Your task to perform on an android device: turn off data saver in the chrome app Image 0: 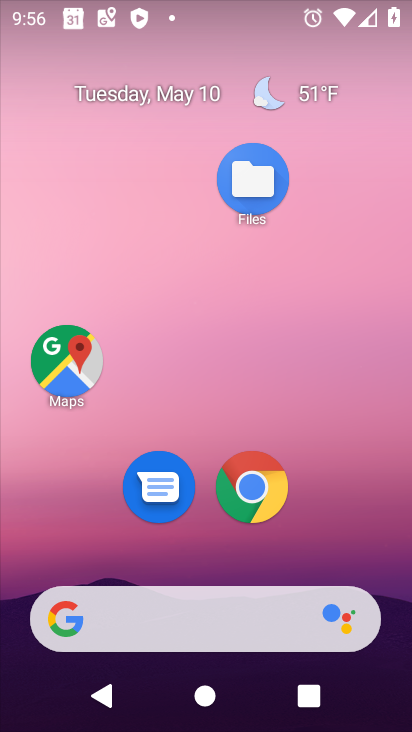
Step 0: click (255, 489)
Your task to perform on an android device: turn off data saver in the chrome app Image 1: 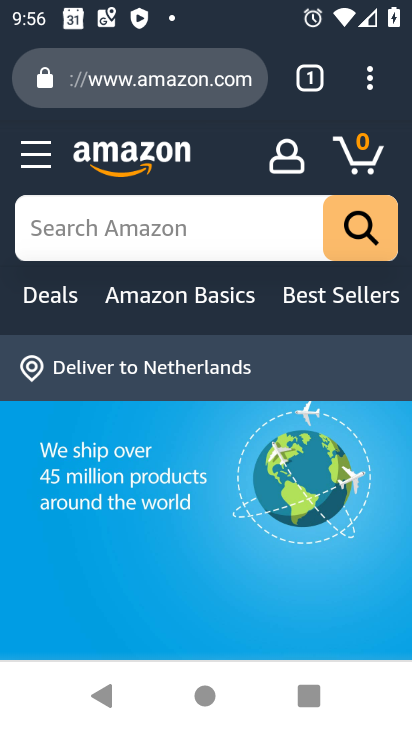
Step 1: click (362, 94)
Your task to perform on an android device: turn off data saver in the chrome app Image 2: 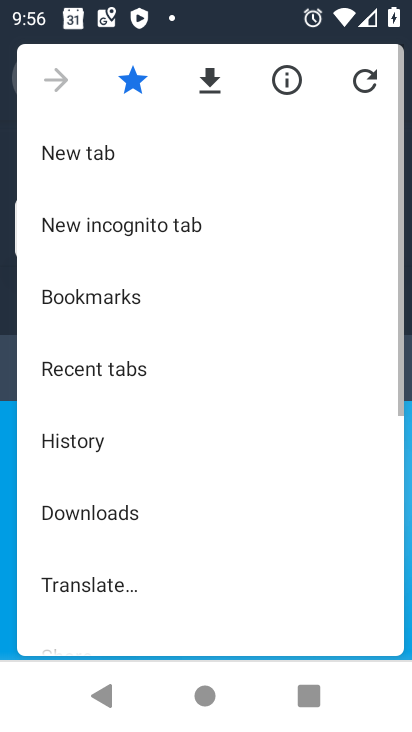
Step 2: drag from (239, 540) to (261, 127)
Your task to perform on an android device: turn off data saver in the chrome app Image 3: 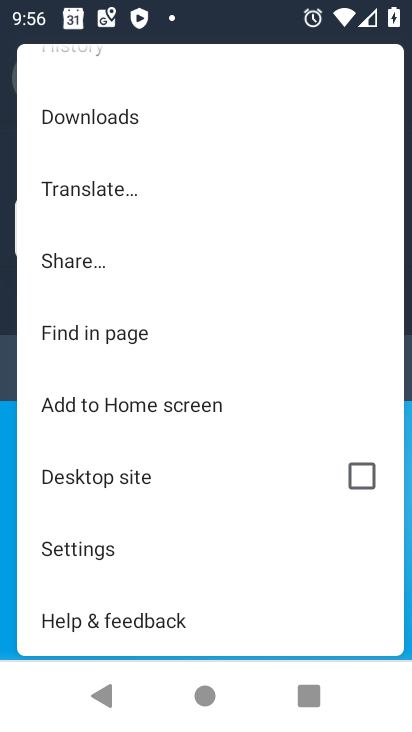
Step 3: click (129, 550)
Your task to perform on an android device: turn off data saver in the chrome app Image 4: 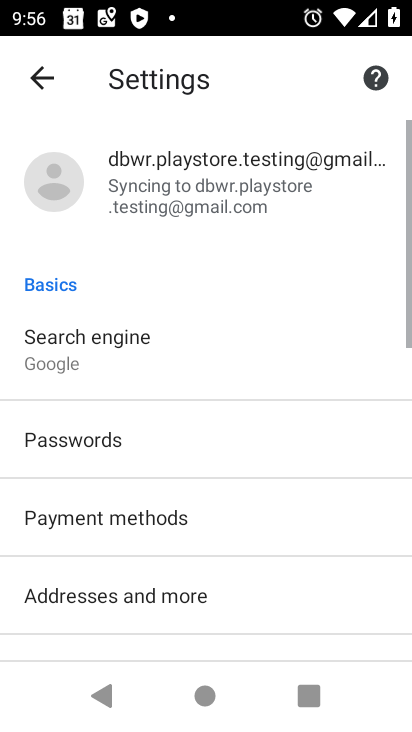
Step 4: drag from (223, 584) to (285, 38)
Your task to perform on an android device: turn off data saver in the chrome app Image 5: 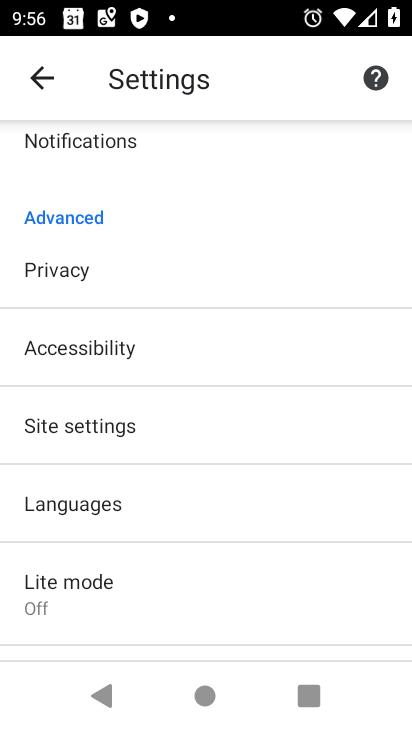
Step 5: click (89, 592)
Your task to perform on an android device: turn off data saver in the chrome app Image 6: 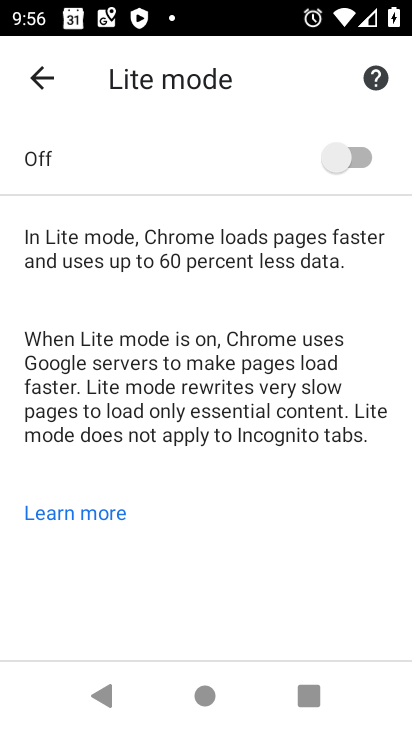
Step 6: task complete